Your task to perform on an android device: Open sound settings Image 0: 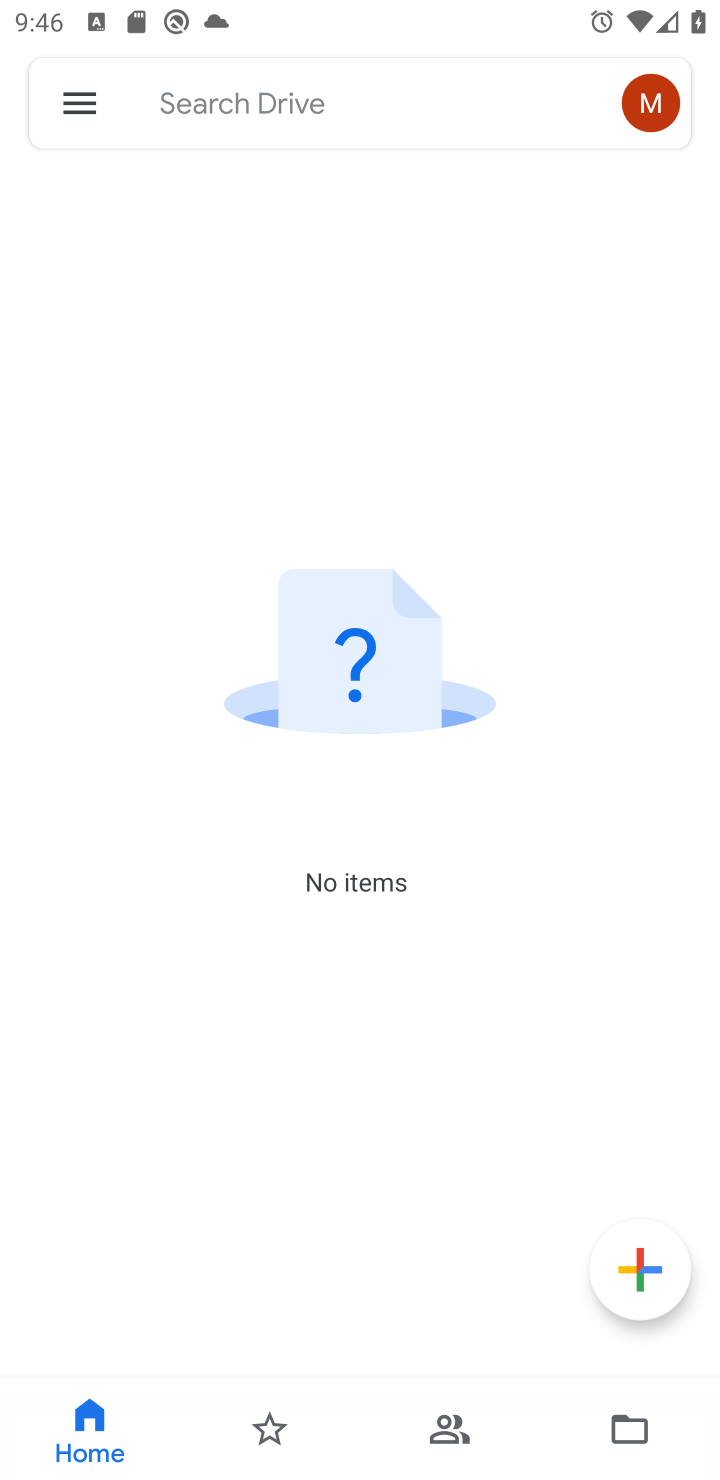
Step 0: press home button
Your task to perform on an android device: Open sound settings Image 1: 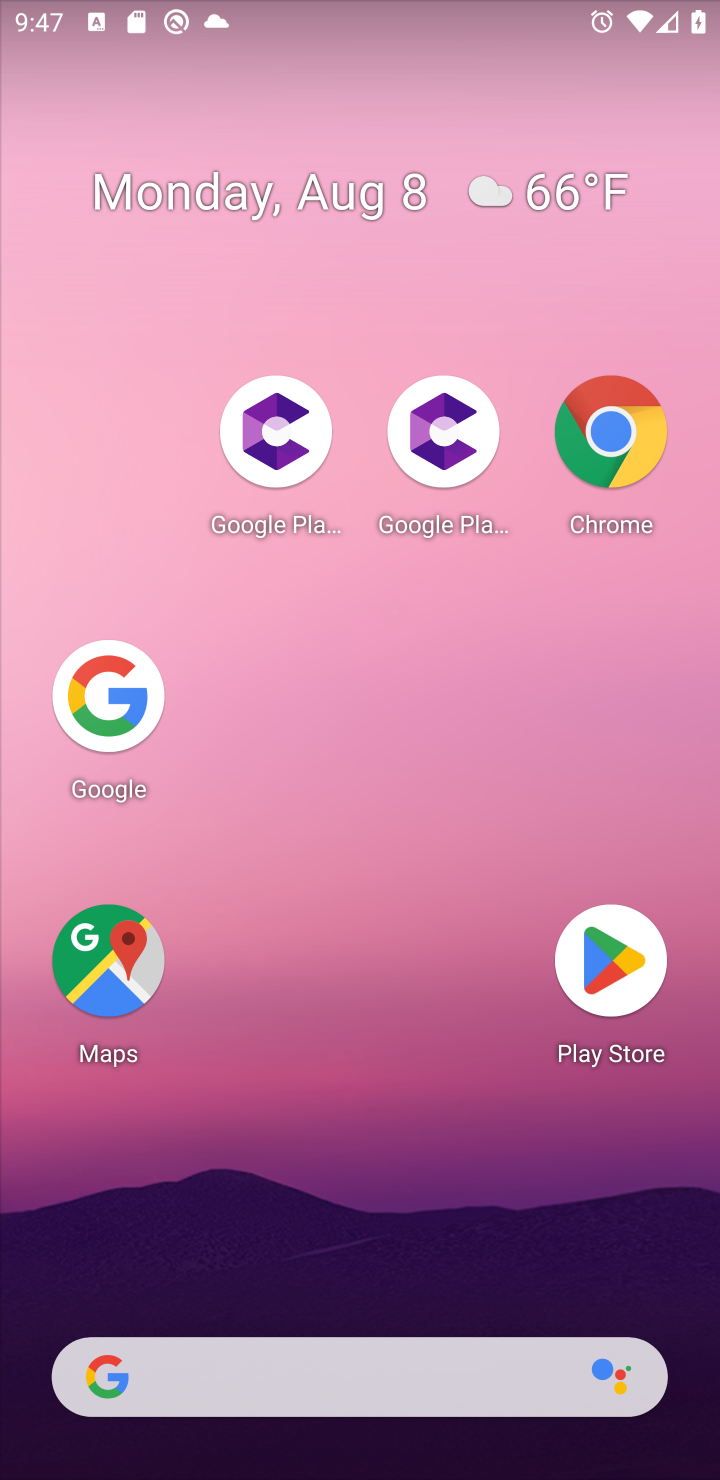
Step 1: drag from (265, 1213) to (140, 330)
Your task to perform on an android device: Open sound settings Image 2: 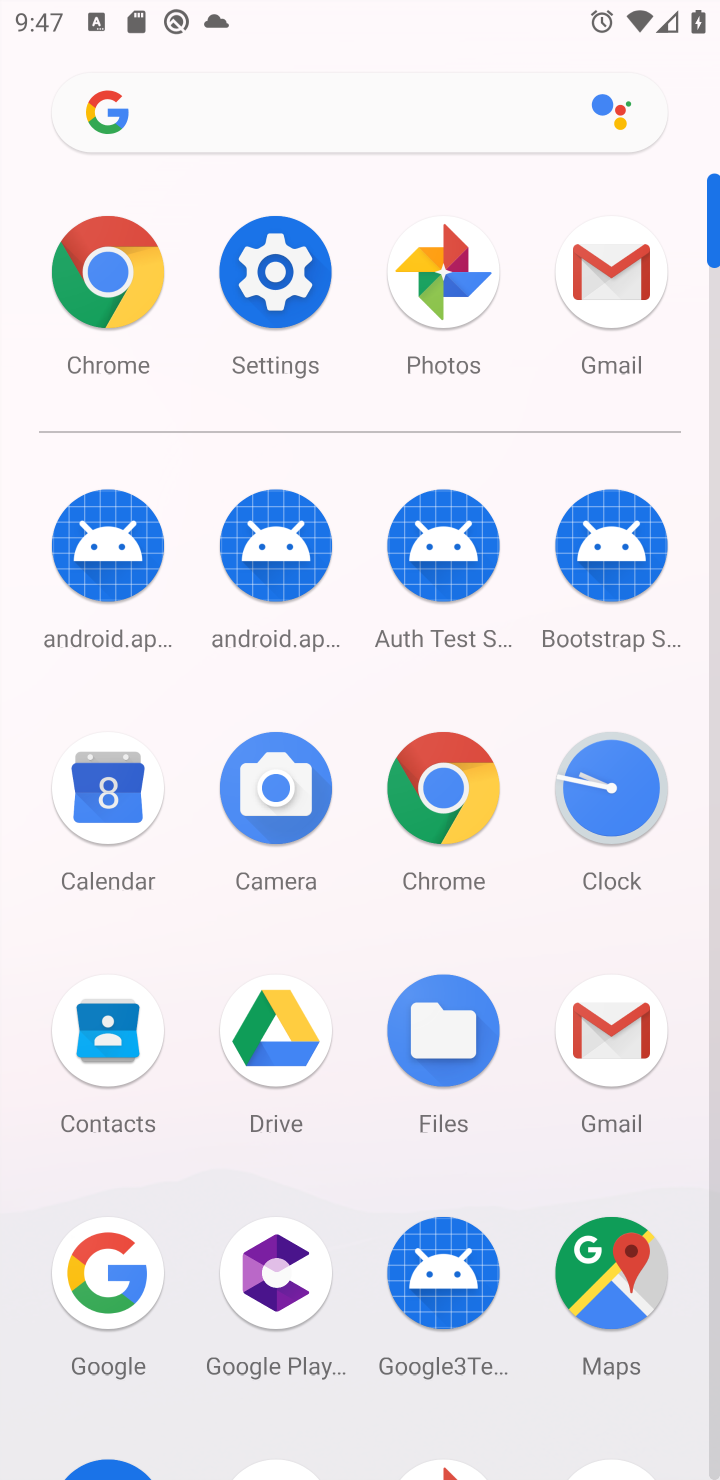
Step 2: click (293, 272)
Your task to perform on an android device: Open sound settings Image 3: 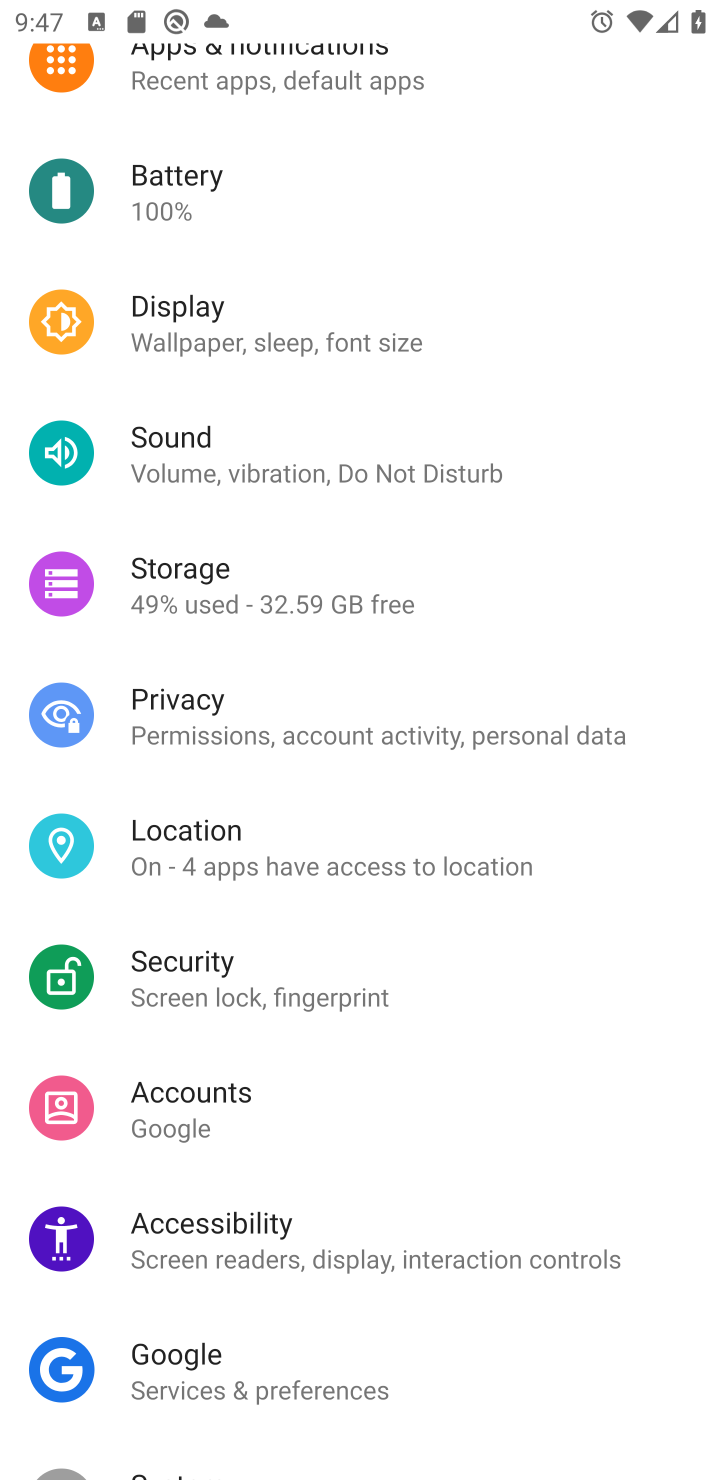
Step 3: click (230, 445)
Your task to perform on an android device: Open sound settings Image 4: 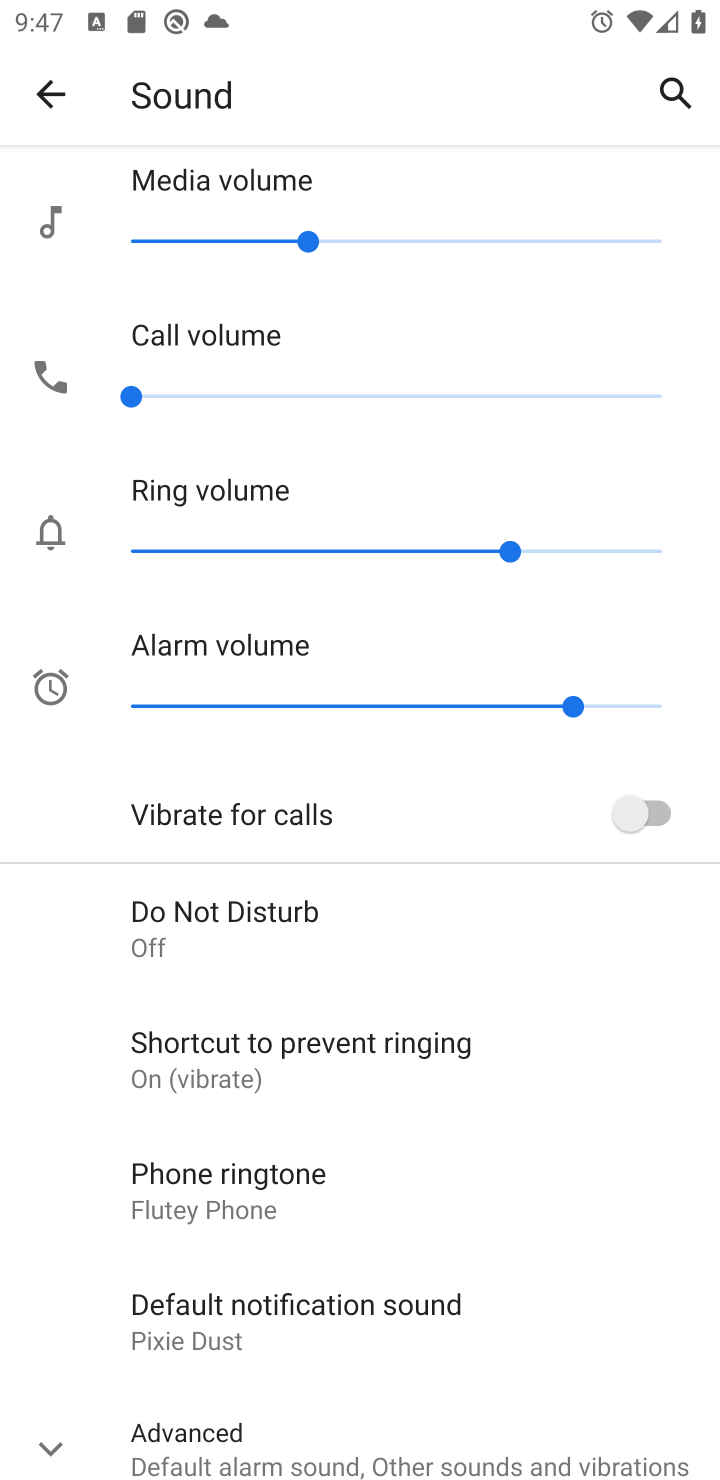
Step 4: task complete